Your task to perform on an android device: Open ESPN.com Image 0: 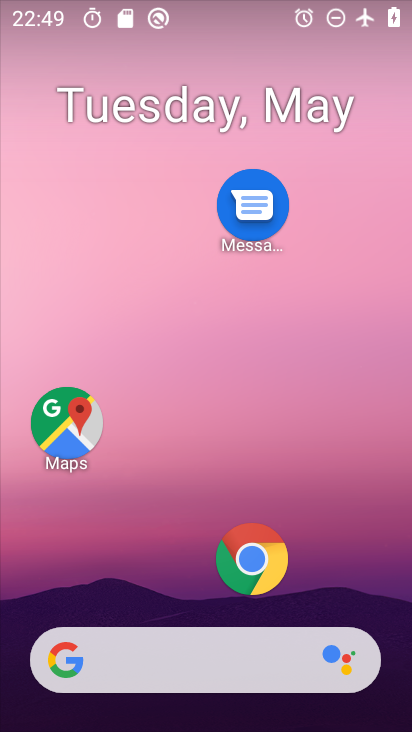
Step 0: click (271, 573)
Your task to perform on an android device: Open ESPN.com Image 1: 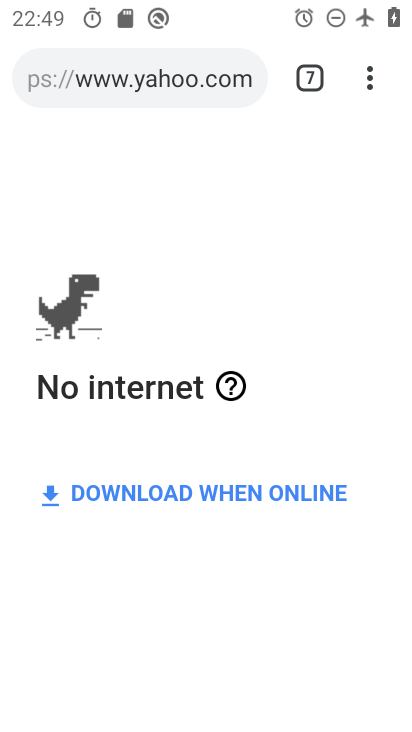
Step 1: click (306, 76)
Your task to perform on an android device: Open ESPN.com Image 2: 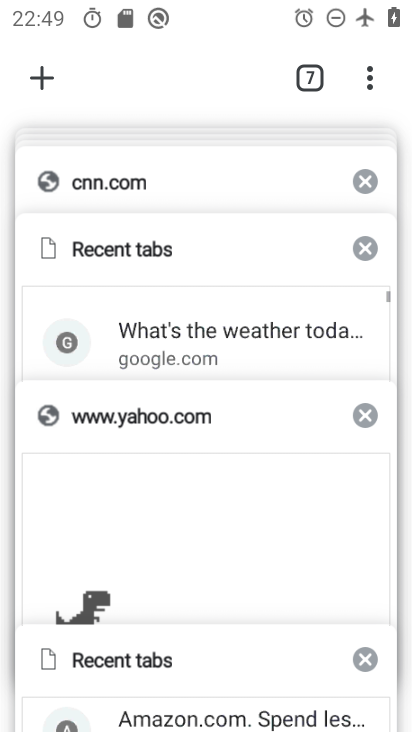
Step 2: drag from (191, 566) to (242, 233)
Your task to perform on an android device: Open ESPN.com Image 3: 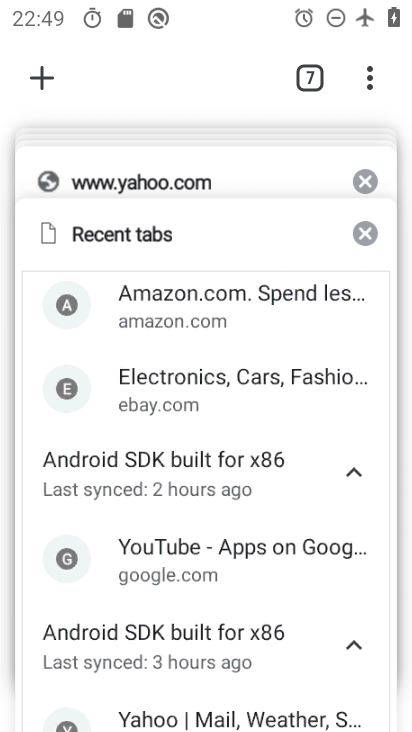
Step 3: drag from (226, 575) to (233, 206)
Your task to perform on an android device: Open ESPN.com Image 4: 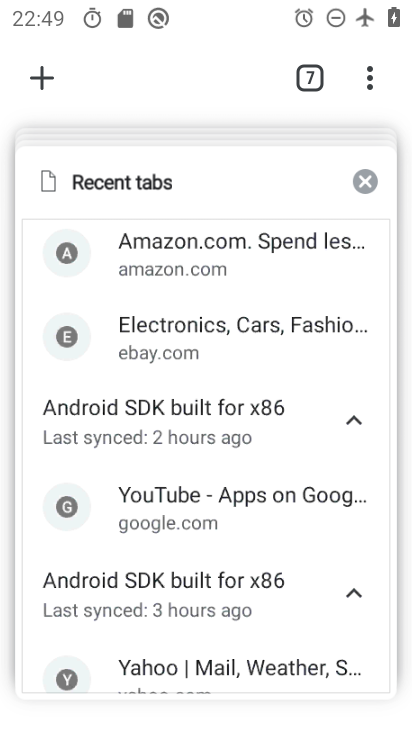
Step 4: drag from (216, 202) to (220, 532)
Your task to perform on an android device: Open ESPN.com Image 5: 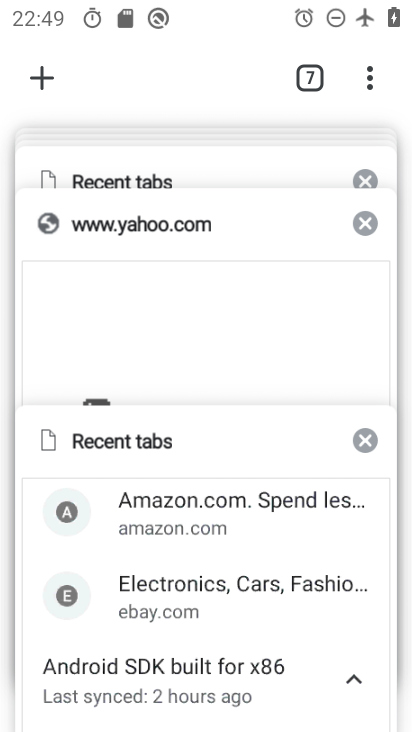
Step 5: drag from (201, 246) to (218, 603)
Your task to perform on an android device: Open ESPN.com Image 6: 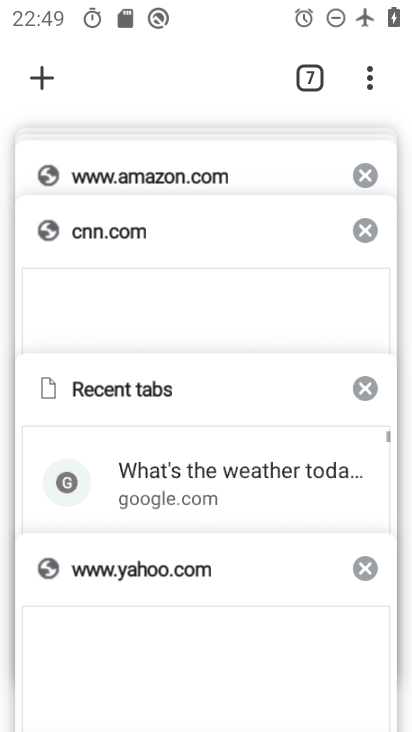
Step 6: drag from (175, 237) to (193, 478)
Your task to perform on an android device: Open ESPN.com Image 7: 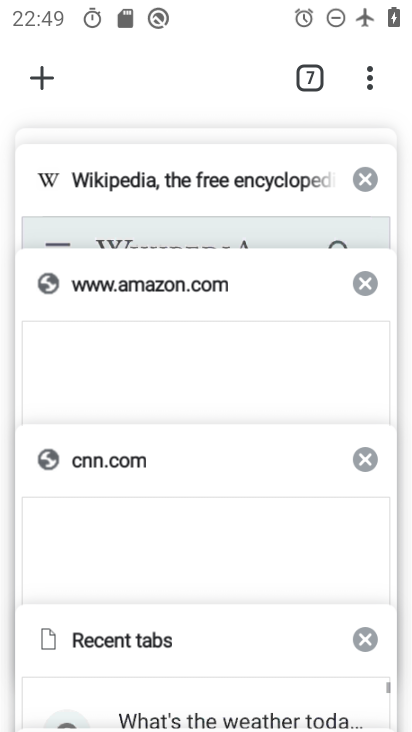
Step 7: drag from (196, 217) to (196, 469)
Your task to perform on an android device: Open ESPN.com Image 8: 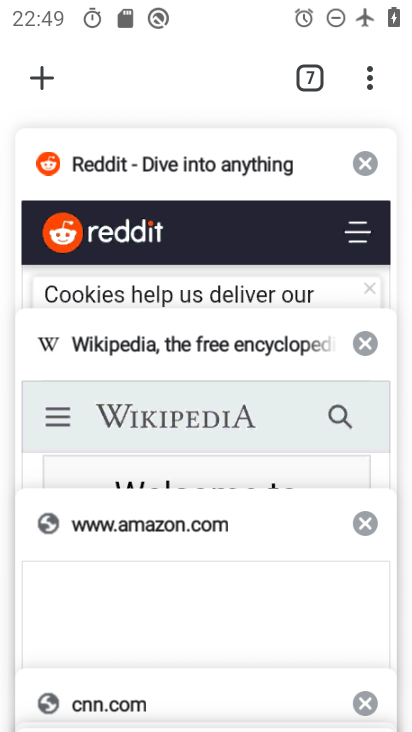
Step 8: drag from (177, 223) to (180, 526)
Your task to perform on an android device: Open ESPN.com Image 9: 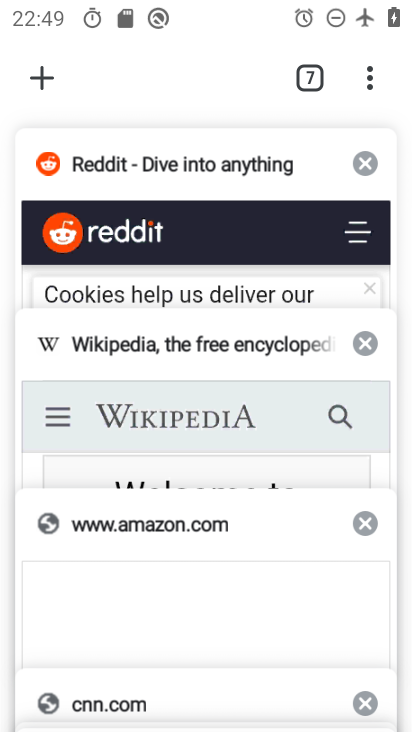
Step 9: click (48, 77)
Your task to perform on an android device: Open ESPN.com Image 10: 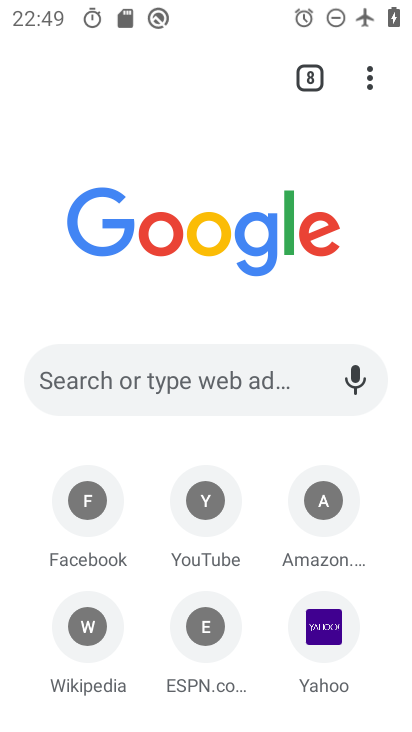
Step 10: click (172, 365)
Your task to perform on an android device: Open ESPN.com Image 11: 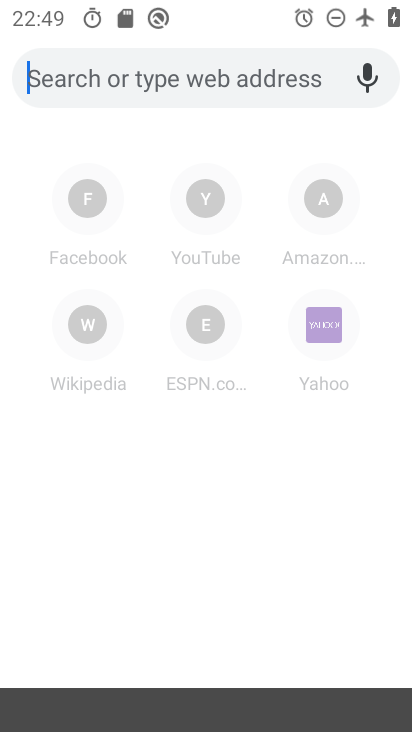
Step 11: click (190, 647)
Your task to perform on an android device: Open ESPN.com Image 12: 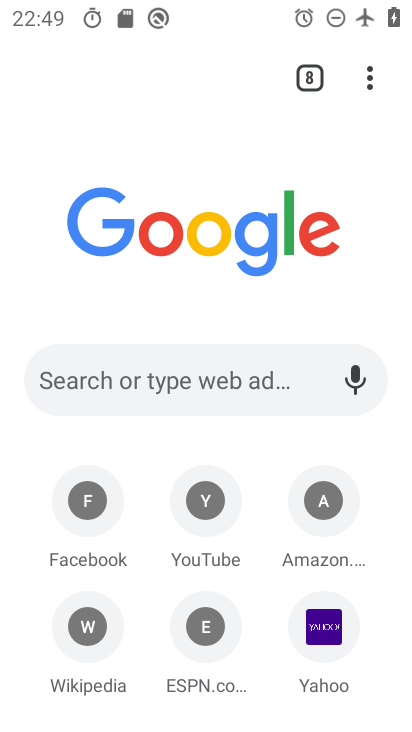
Step 12: click (212, 605)
Your task to perform on an android device: Open ESPN.com Image 13: 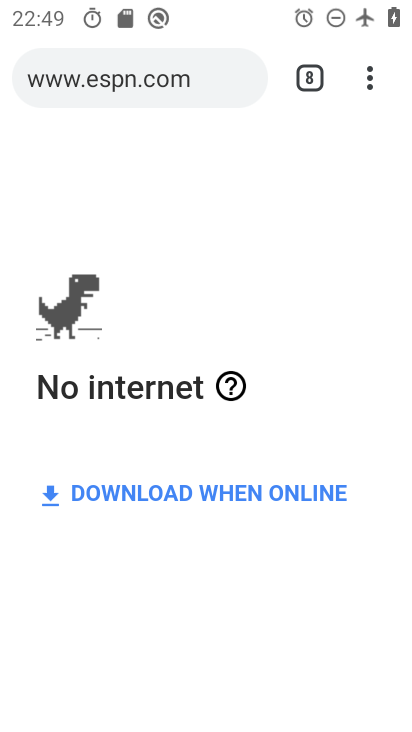
Step 13: task complete